Your task to perform on an android device: toggle notification dots Image 0: 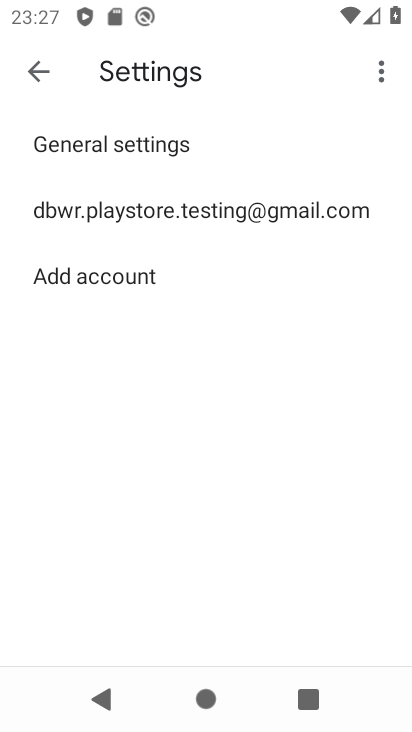
Step 0: press home button
Your task to perform on an android device: toggle notification dots Image 1: 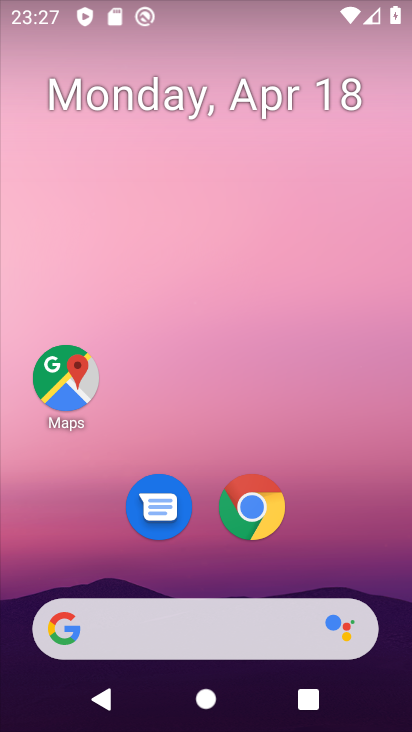
Step 1: drag from (336, 542) to (339, 134)
Your task to perform on an android device: toggle notification dots Image 2: 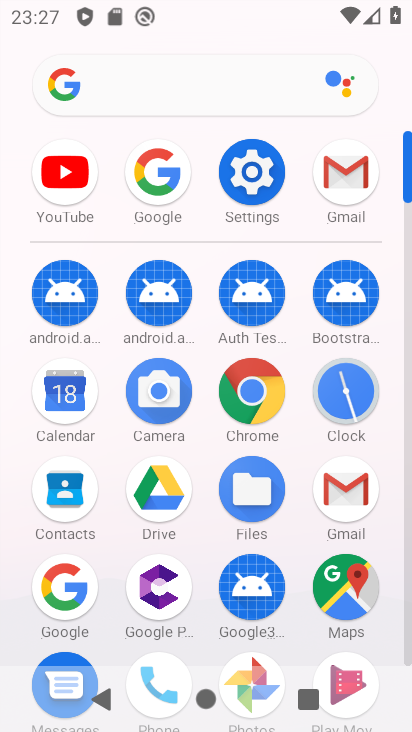
Step 2: drag from (283, 537) to (338, 175)
Your task to perform on an android device: toggle notification dots Image 3: 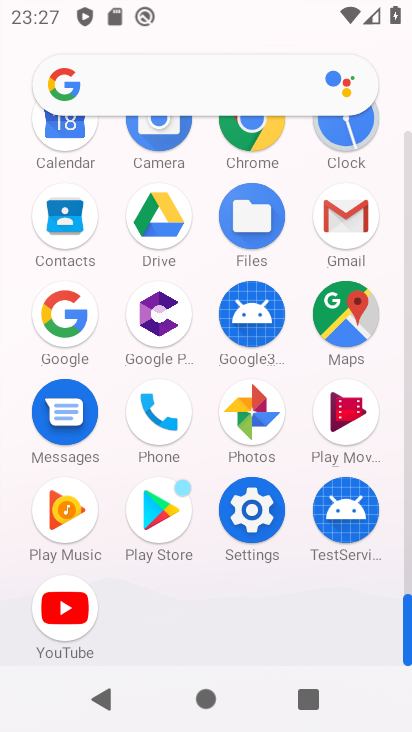
Step 3: click (250, 490)
Your task to perform on an android device: toggle notification dots Image 4: 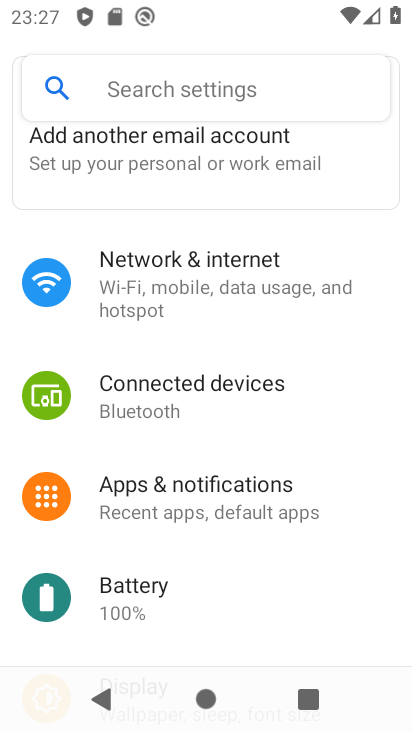
Step 4: click (218, 495)
Your task to perform on an android device: toggle notification dots Image 5: 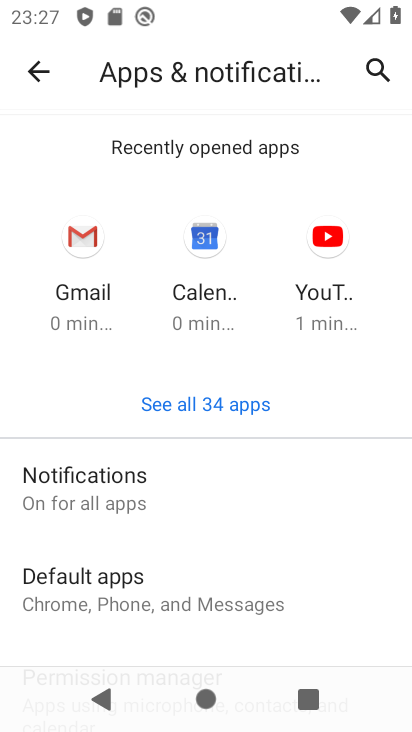
Step 5: click (122, 474)
Your task to perform on an android device: toggle notification dots Image 6: 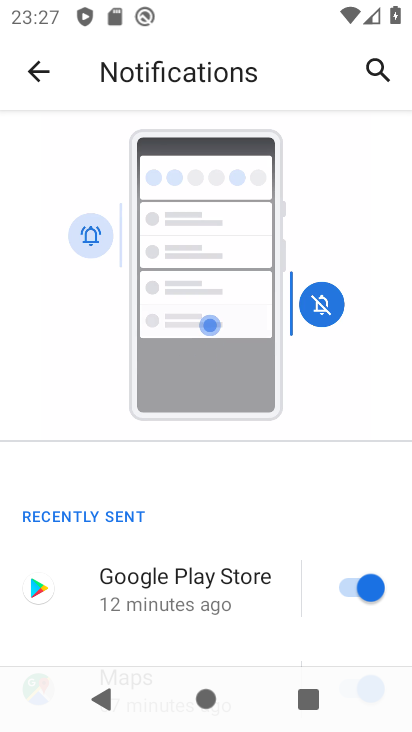
Step 6: drag from (196, 536) to (301, 133)
Your task to perform on an android device: toggle notification dots Image 7: 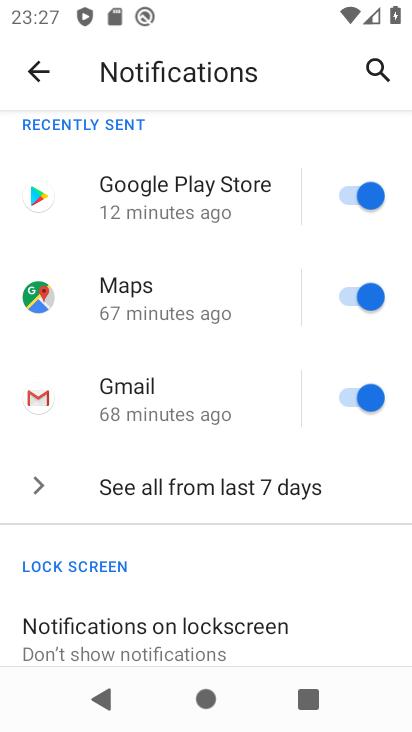
Step 7: drag from (141, 537) to (263, 161)
Your task to perform on an android device: toggle notification dots Image 8: 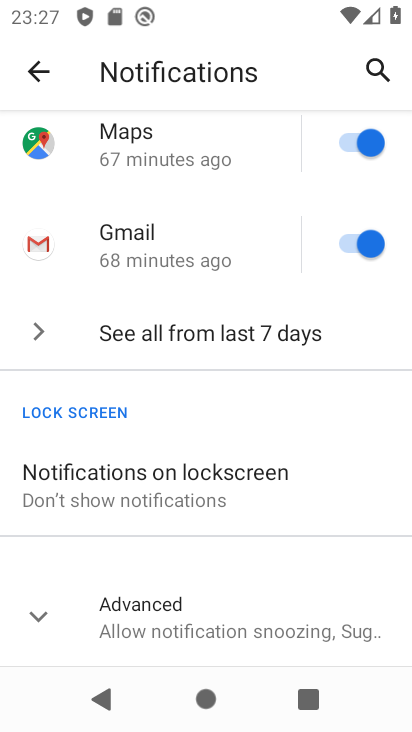
Step 8: click (36, 605)
Your task to perform on an android device: toggle notification dots Image 9: 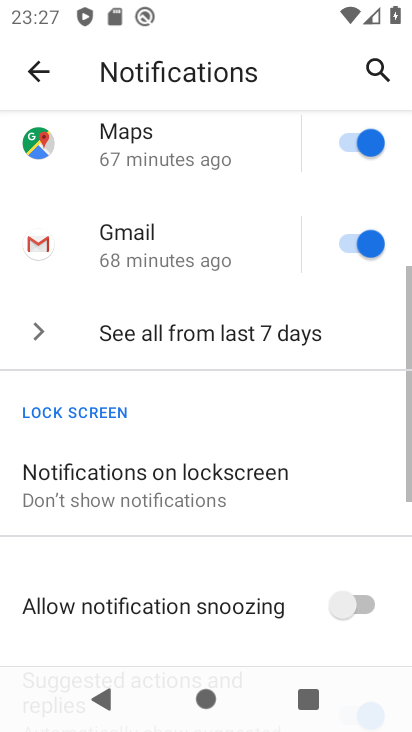
Step 9: drag from (236, 587) to (332, 135)
Your task to perform on an android device: toggle notification dots Image 10: 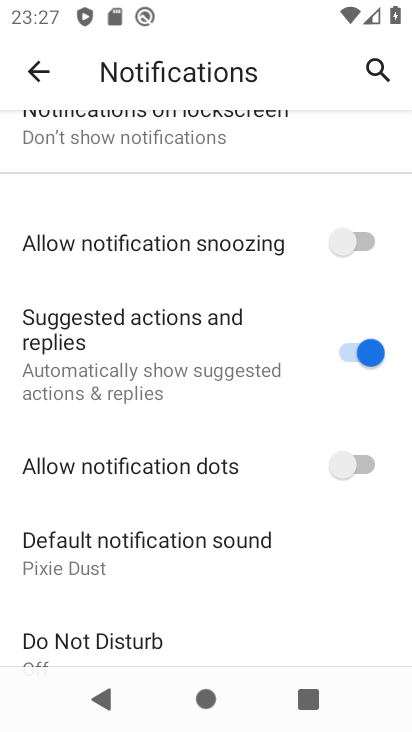
Step 10: click (360, 458)
Your task to perform on an android device: toggle notification dots Image 11: 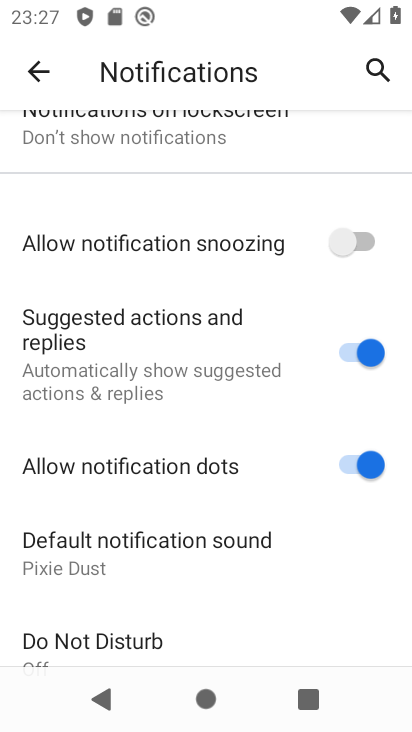
Step 11: task complete